Your task to perform on an android device: turn on notifications settings in the gmail app Image 0: 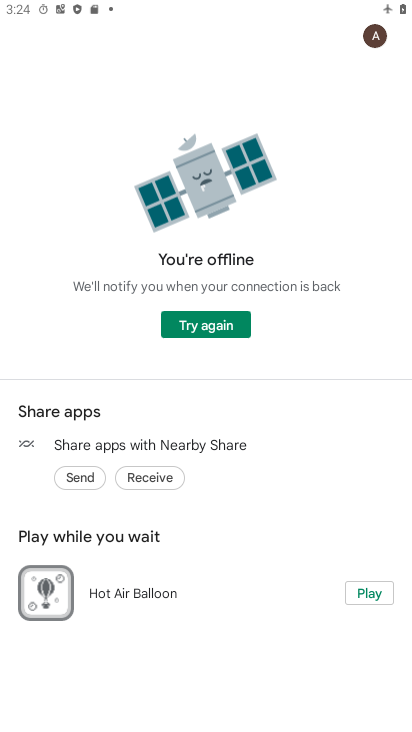
Step 0: press home button
Your task to perform on an android device: turn on notifications settings in the gmail app Image 1: 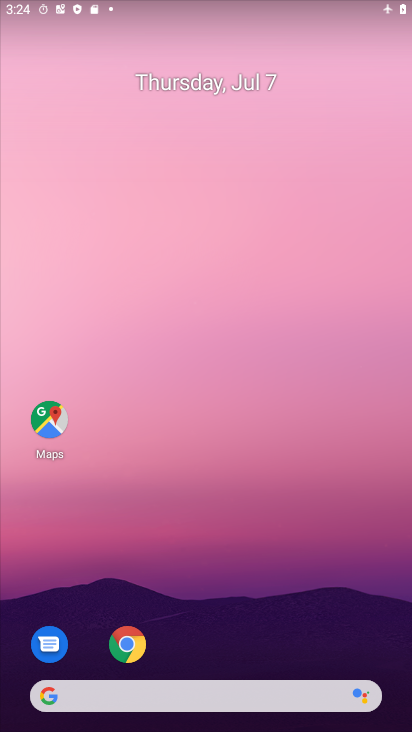
Step 1: drag from (188, 487) to (361, 16)
Your task to perform on an android device: turn on notifications settings in the gmail app Image 2: 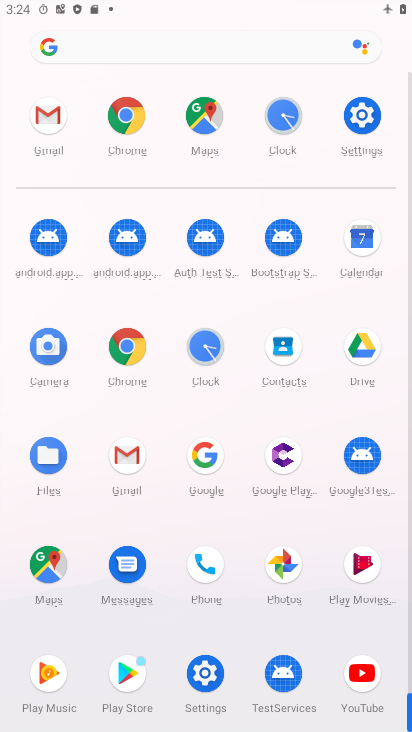
Step 2: click (130, 456)
Your task to perform on an android device: turn on notifications settings in the gmail app Image 3: 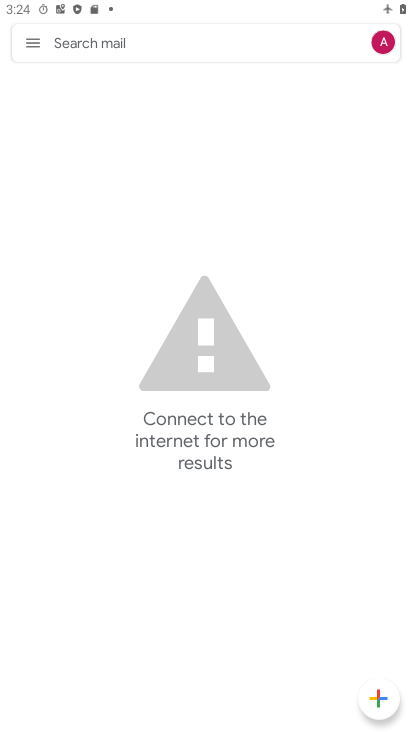
Step 3: click (24, 36)
Your task to perform on an android device: turn on notifications settings in the gmail app Image 4: 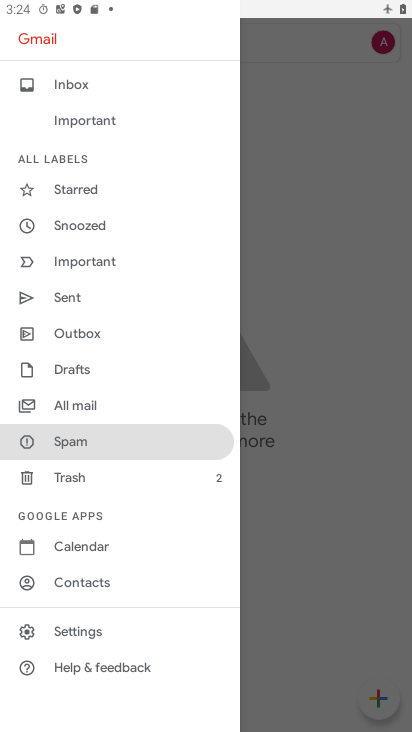
Step 4: click (102, 623)
Your task to perform on an android device: turn on notifications settings in the gmail app Image 5: 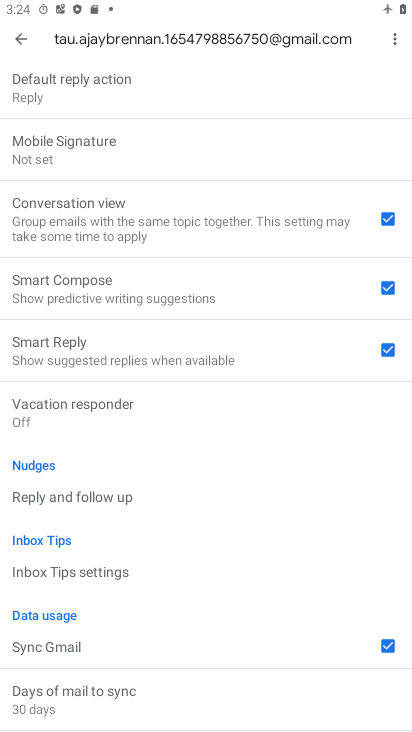
Step 5: drag from (105, 452) to (105, 224)
Your task to perform on an android device: turn on notifications settings in the gmail app Image 6: 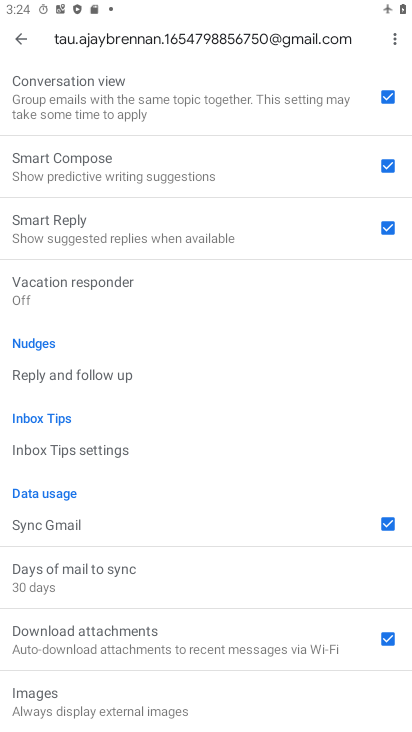
Step 6: click (34, 39)
Your task to perform on an android device: turn on notifications settings in the gmail app Image 7: 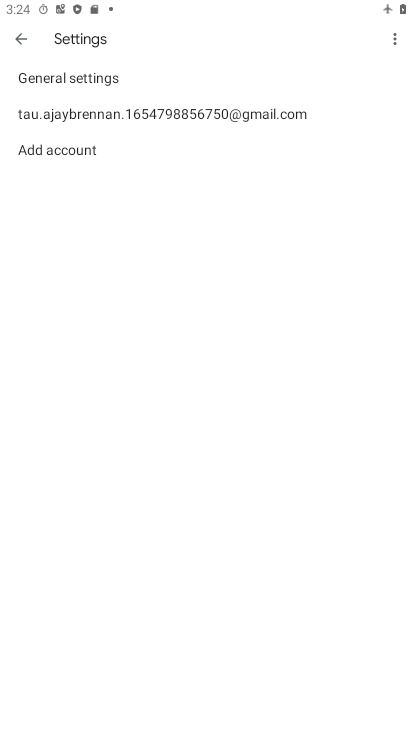
Step 7: click (50, 81)
Your task to perform on an android device: turn on notifications settings in the gmail app Image 8: 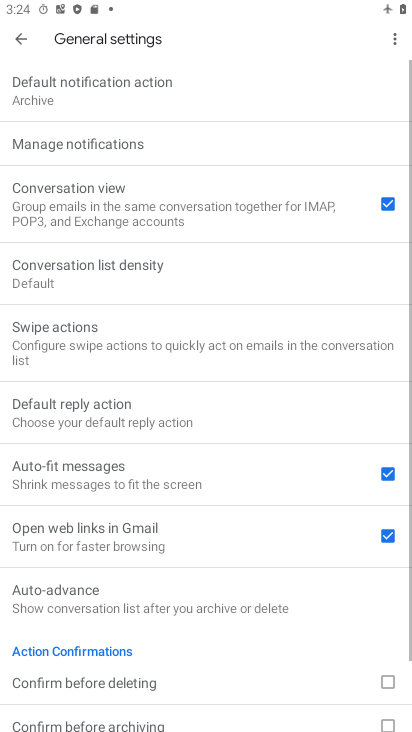
Step 8: click (78, 146)
Your task to perform on an android device: turn on notifications settings in the gmail app Image 9: 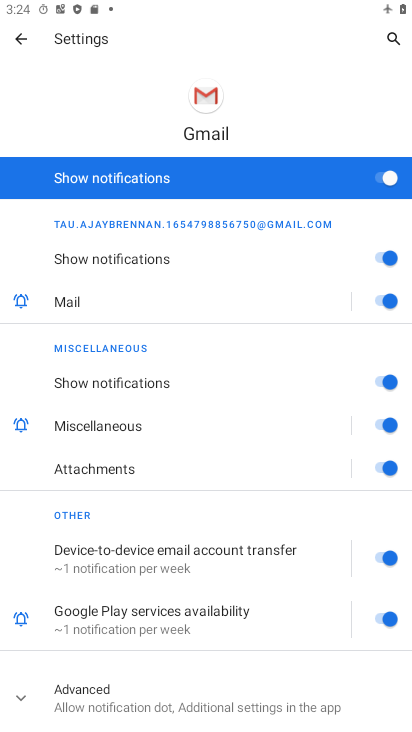
Step 9: task complete